Your task to perform on an android device: Go to Yahoo.com Image 0: 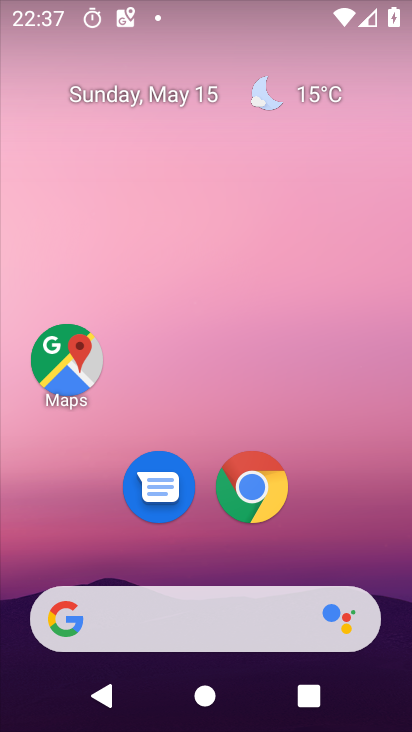
Step 0: click (248, 504)
Your task to perform on an android device: Go to Yahoo.com Image 1: 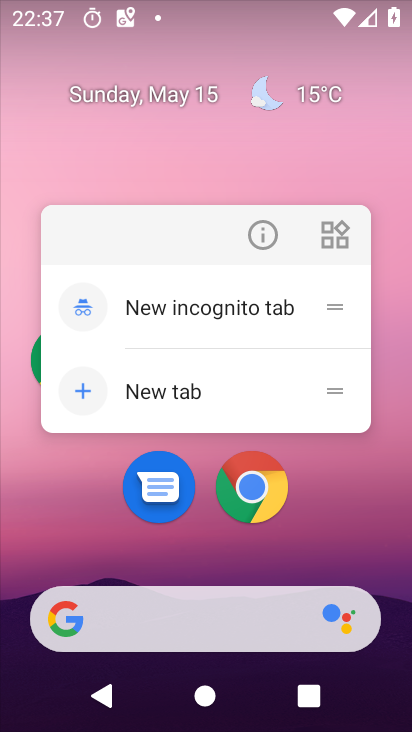
Step 1: click (248, 503)
Your task to perform on an android device: Go to Yahoo.com Image 2: 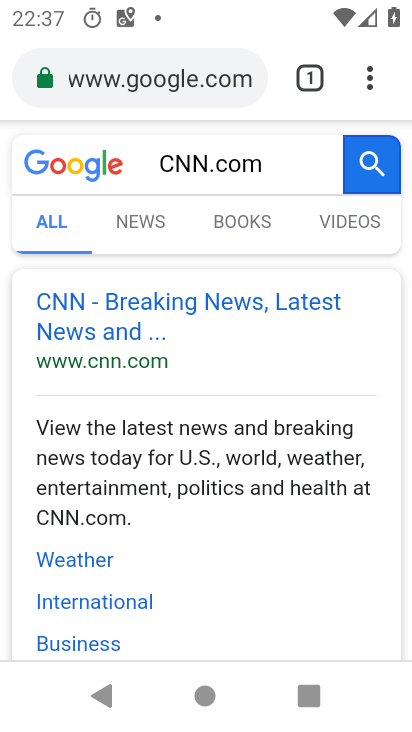
Step 2: click (239, 84)
Your task to perform on an android device: Go to Yahoo.com Image 3: 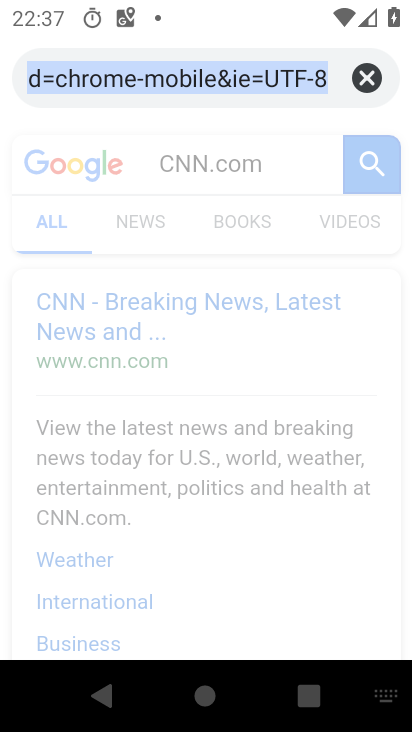
Step 3: click (371, 75)
Your task to perform on an android device: Go to Yahoo.com Image 4: 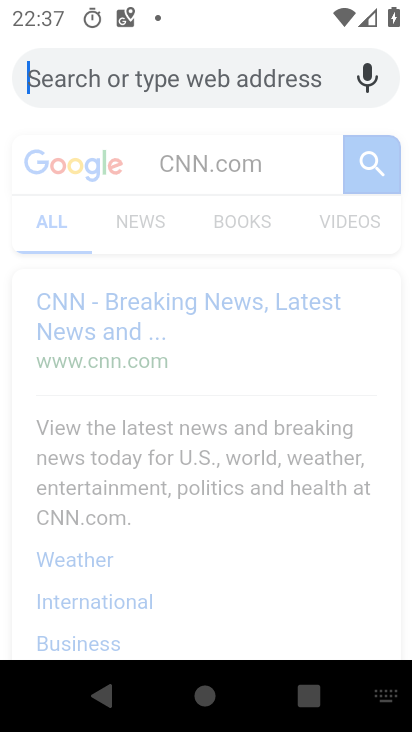
Step 4: click (198, 691)
Your task to perform on an android device: Go to Yahoo.com Image 5: 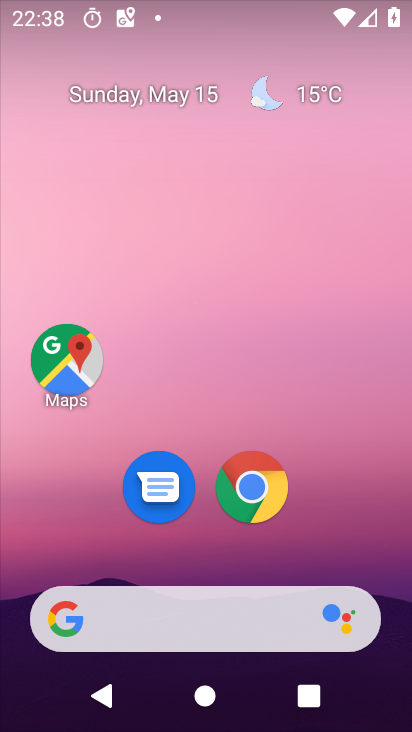
Step 5: click (259, 480)
Your task to perform on an android device: Go to Yahoo.com Image 6: 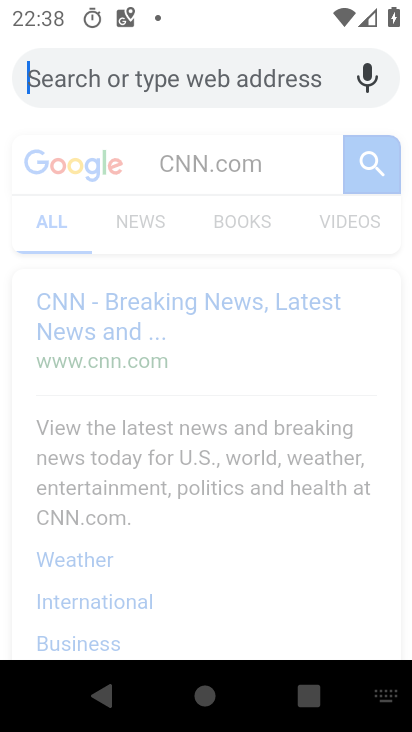
Step 6: type "Yahoo.com"
Your task to perform on an android device: Go to Yahoo.com Image 7: 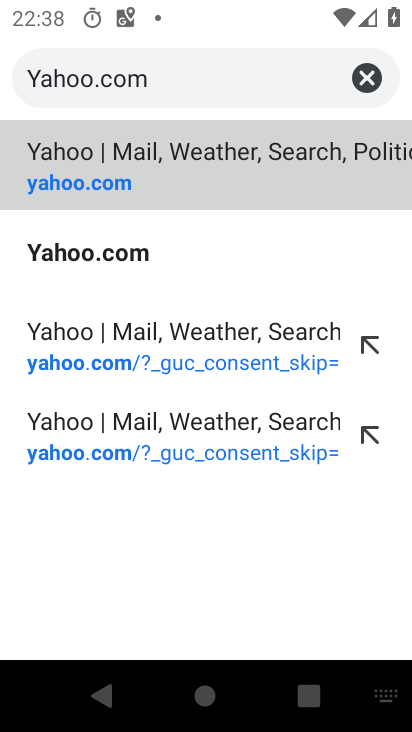
Step 7: click (81, 250)
Your task to perform on an android device: Go to Yahoo.com Image 8: 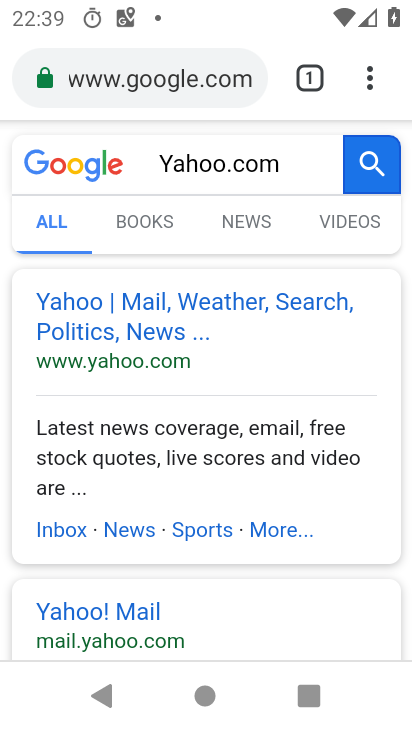
Step 8: task complete